Your task to perform on an android device: Add rayovac triple a to the cart on target, then select checkout. Image 0: 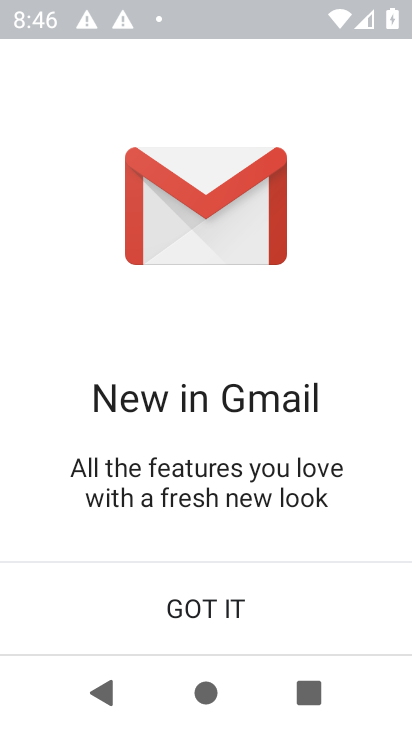
Step 0: click (189, 633)
Your task to perform on an android device: Add rayovac triple a to the cart on target, then select checkout. Image 1: 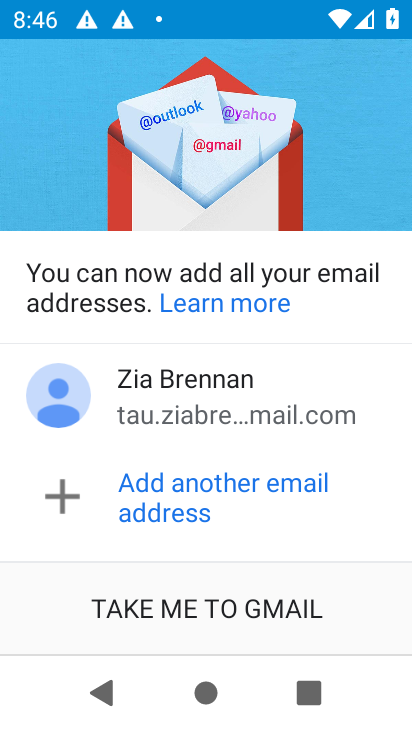
Step 1: press home button
Your task to perform on an android device: Add rayovac triple a to the cart on target, then select checkout. Image 2: 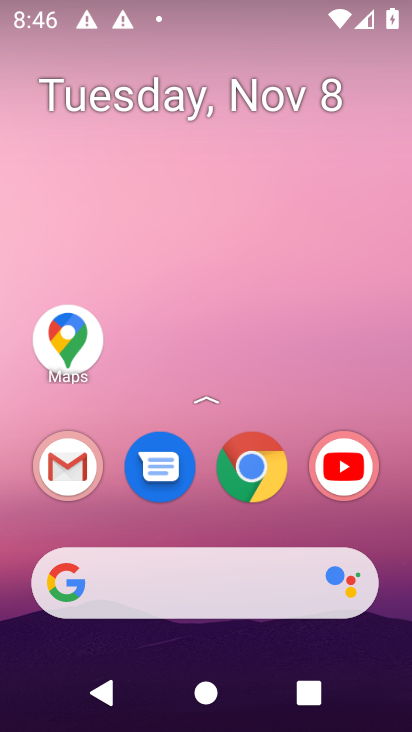
Step 2: click (196, 596)
Your task to perform on an android device: Add rayovac triple a to the cart on target, then select checkout. Image 3: 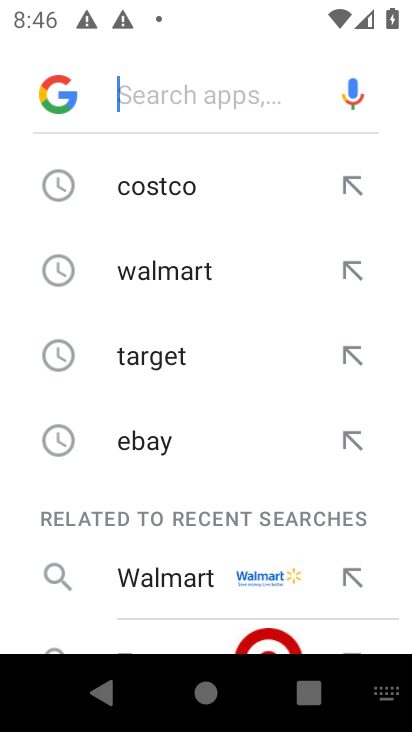
Step 3: click (236, 370)
Your task to perform on an android device: Add rayovac triple a to the cart on target, then select checkout. Image 4: 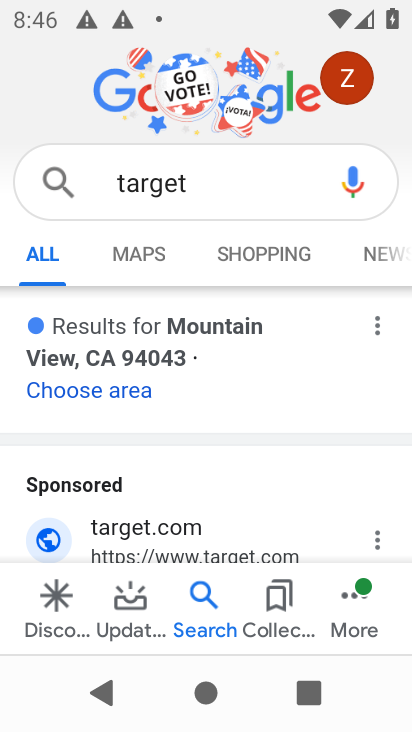
Step 4: click (110, 517)
Your task to perform on an android device: Add rayovac triple a to the cart on target, then select checkout. Image 5: 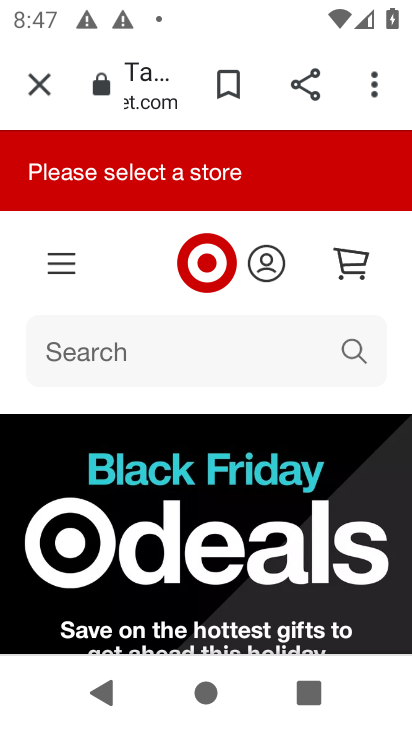
Step 5: click (251, 345)
Your task to perform on an android device: Add rayovac triple a to the cart on target, then select checkout. Image 6: 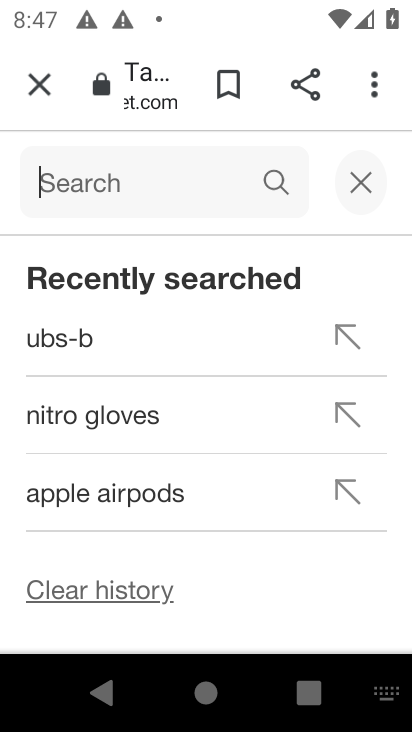
Step 6: type "target"
Your task to perform on an android device: Add rayovac triple a to the cart on target, then select checkout. Image 7: 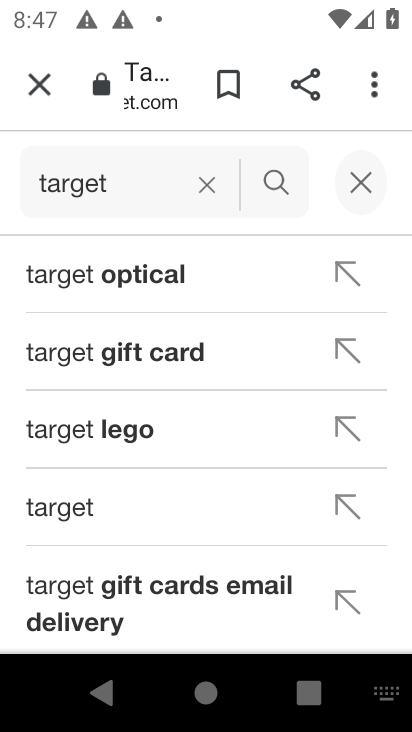
Step 7: task complete